Your task to perform on an android device: Go to accessibility settings Image 0: 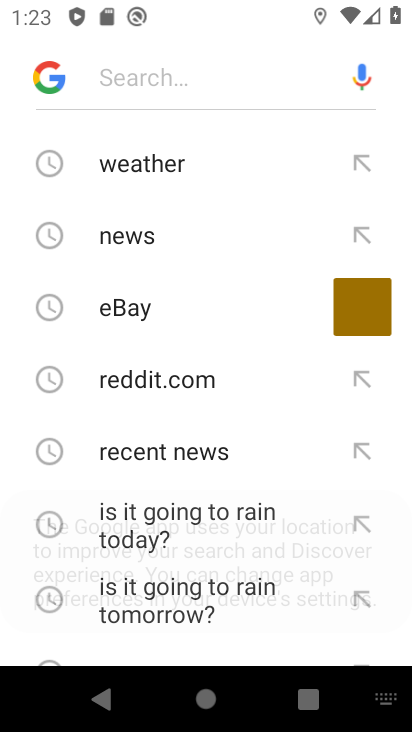
Step 0: press home button
Your task to perform on an android device: Go to accessibility settings Image 1: 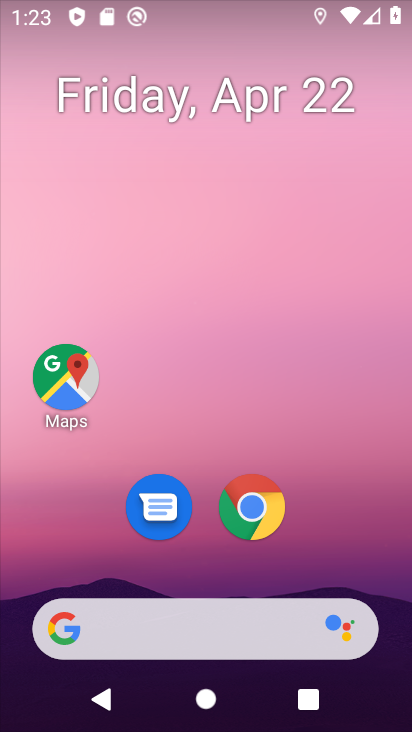
Step 1: drag from (201, 642) to (291, 221)
Your task to perform on an android device: Go to accessibility settings Image 2: 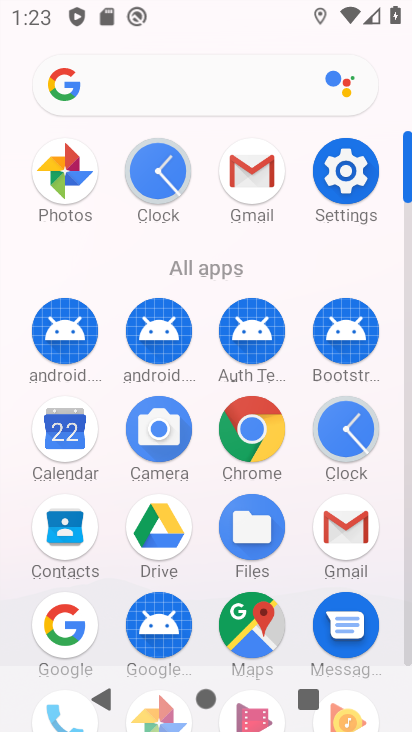
Step 2: click (349, 189)
Your task to perform on an android device: Go to accessibility settings Image 3: 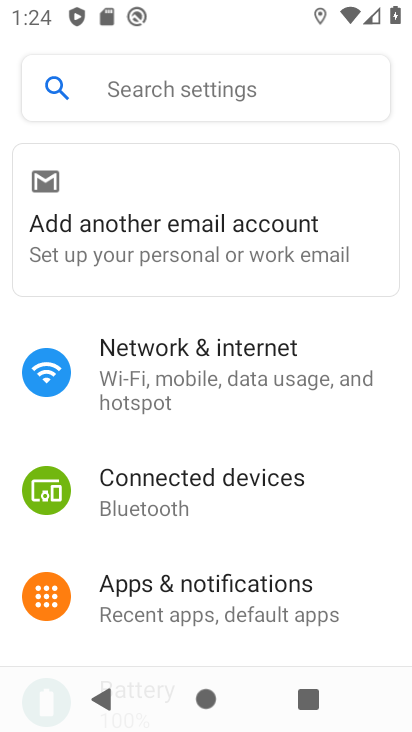
Step 3: drag from (190, 556) to (342, 191)
Your task to perform on an android device: Go to accessibility settings Image 4: 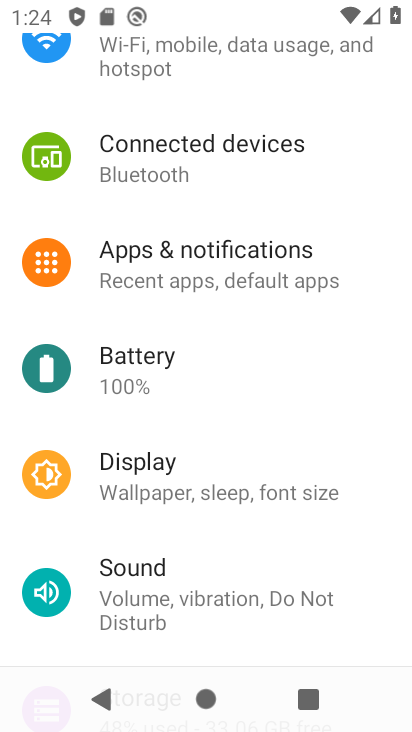
Step 4: drag from (168, 591) to (315, 300)
Your task to perform on an android device: Go to accessibility settings Image 5: 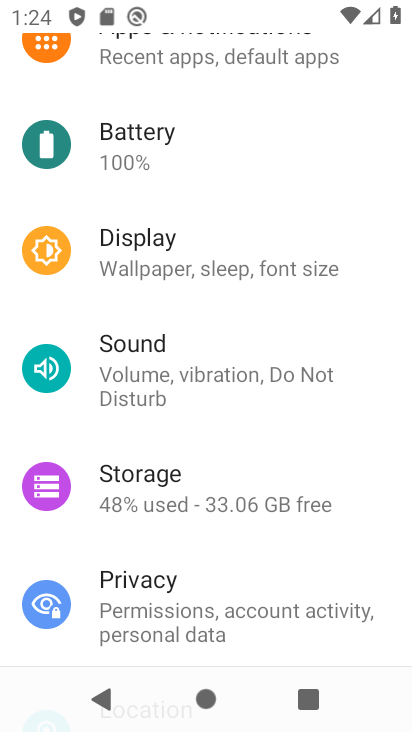
Step 5: drag from (185, 580) to (289, 232)
Your task to perform on an android device: Go to accessibility settings Image 6: 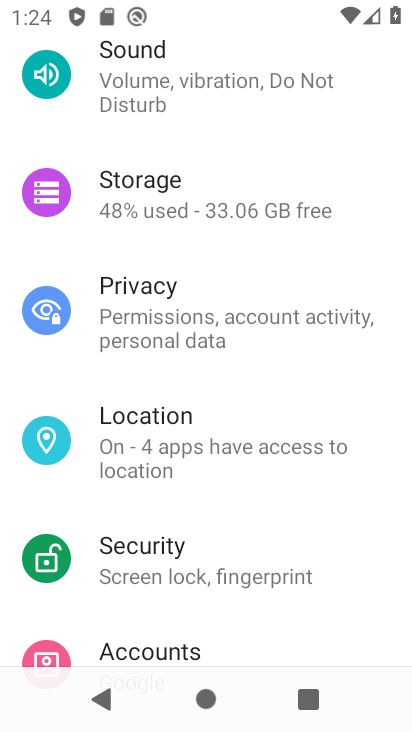
Step 6: drag from (169, 572) to (323, 134)
Your task to perform on an android device: Go to accessibility settings Image 7: 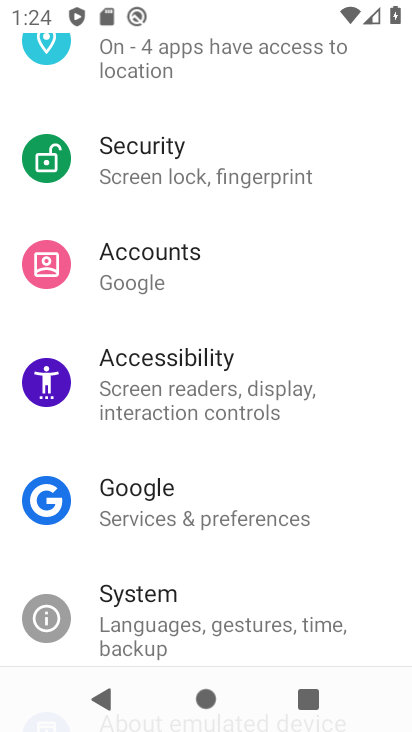
Step 7: click (190, 396)
Your task to perform on an android device: Go to accessibility settings Image 8: 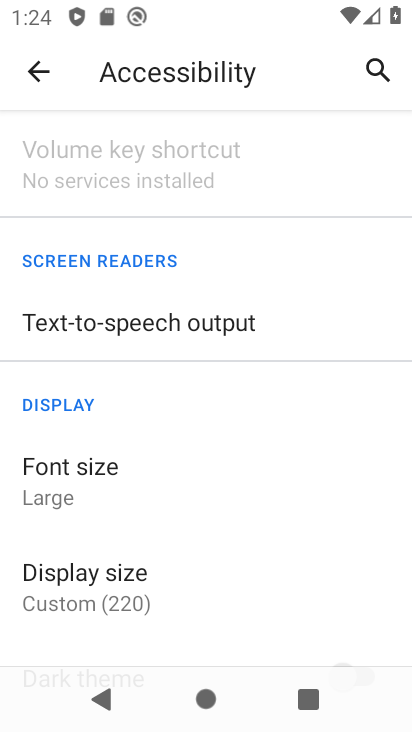
Step 8: task complete